Your task to perform on an android device: Go to network settings Image 0: 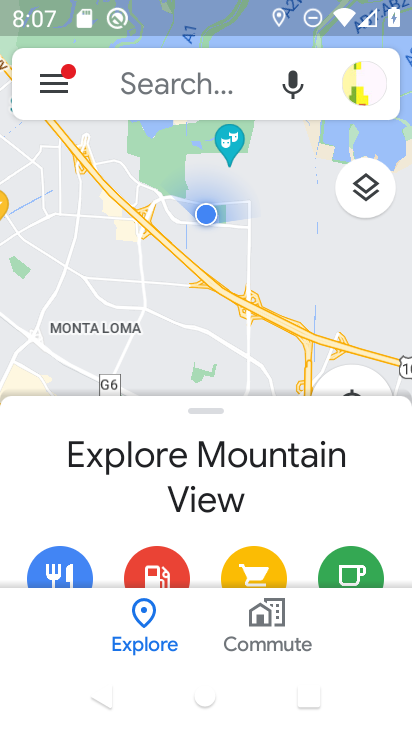
Step 0: press home button
Your task to perform on an android device: Go to network settings Image 1: 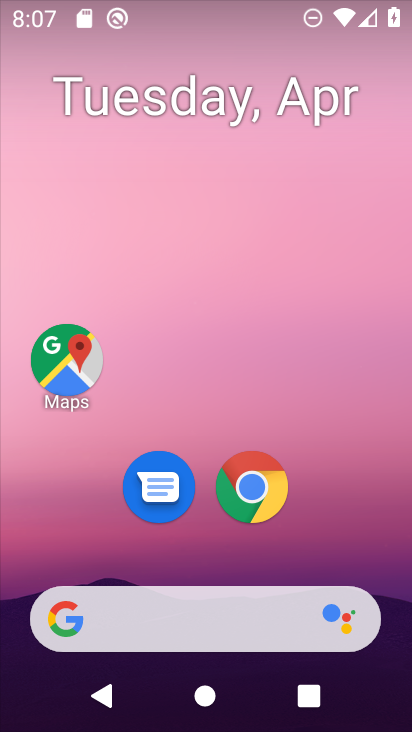
Step 1: drag from (202, 339) to (201, 222)
Your task to perform on an android device: Go to network settings Image 2: 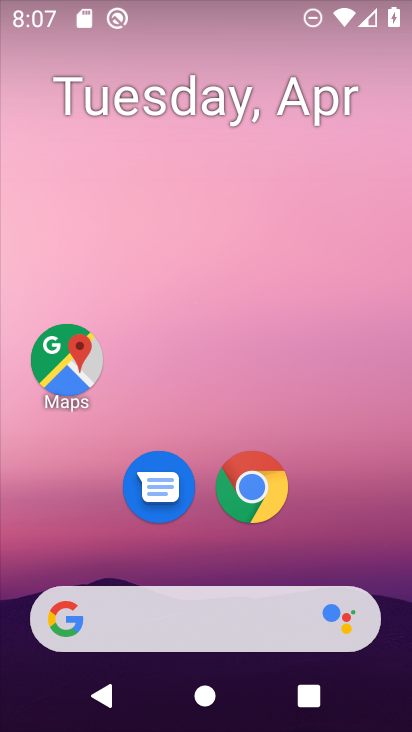
Step 2: drag from (224, 578) to (224, 216)
Your task to perform on an android device: Go to network settings Image 3: 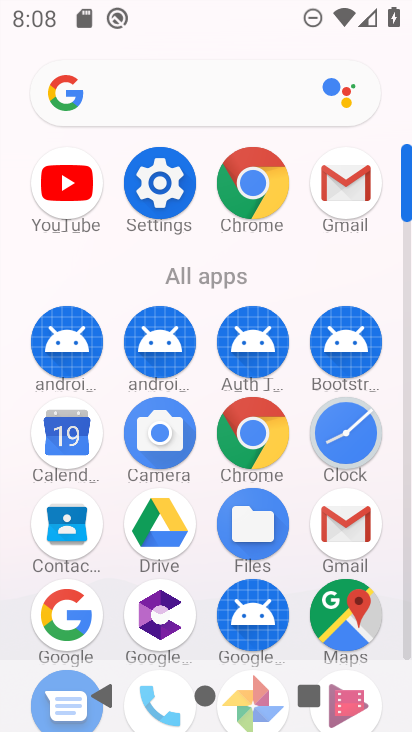
Step 3: click (157, 186)
Your task to perform on an android device: Go to network settings Image 4: 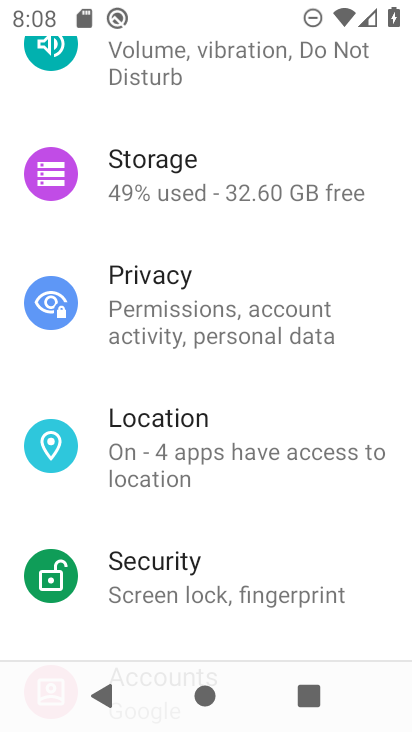
Step 4: drag from (167, 608) to (217, 239)
Your task to perform on an android device: Go to network settings Image 5: 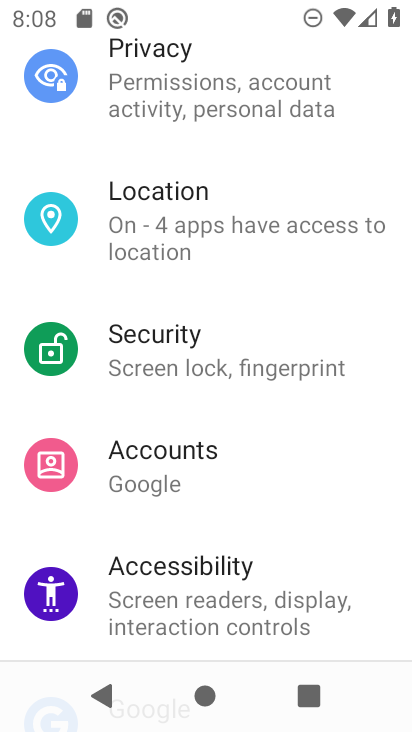
Step 5: drag from (200, 610) to (198, 310)
Your task to perform on an android device: Go to network settings Image 6: 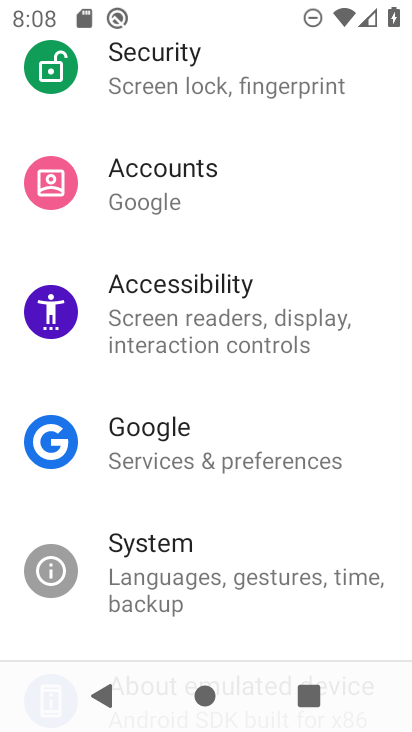
Step 6: drag from (279, 141) to (233, 553)
Your task to perform on an android device: Go to network settings Image 7: 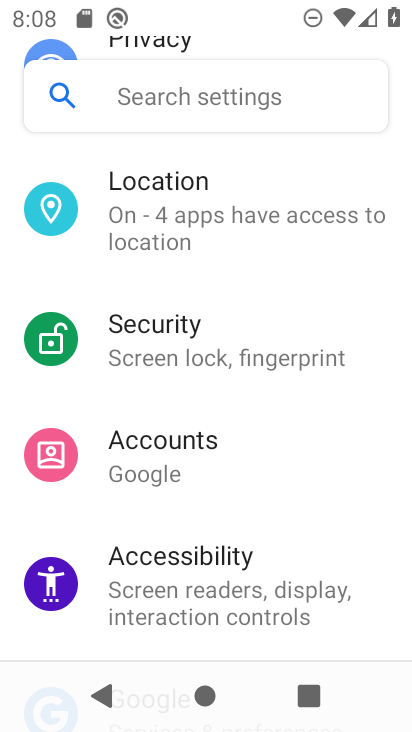
Step 7: drag from (251, 115) to (274, 497)
Your task to perform on an android device: Go to network settings Image 8: 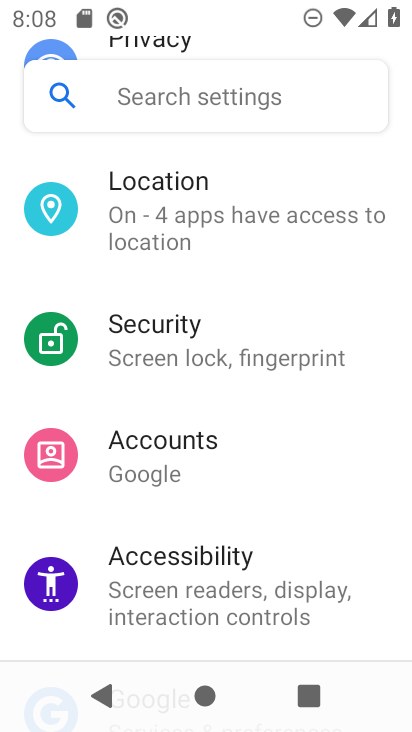
Step 8: drag from (275, 183) to (277, 535)
Your task to perform on an android device: Go to network settings Image 9: 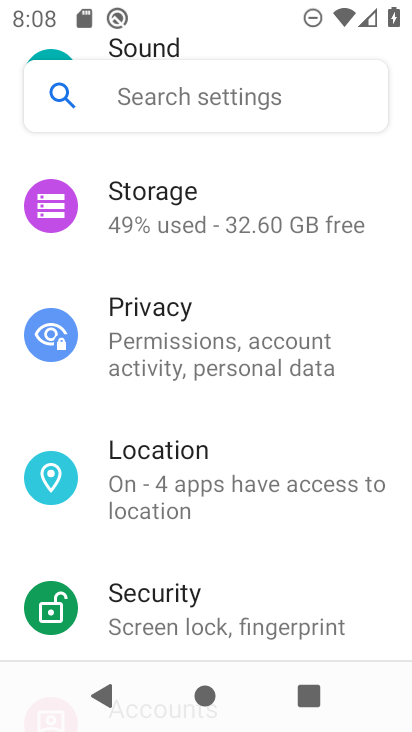
Step 9: drag from (288, 204) to (310, 609)
Your task to perform on an android device: Go to network settings Image 10: 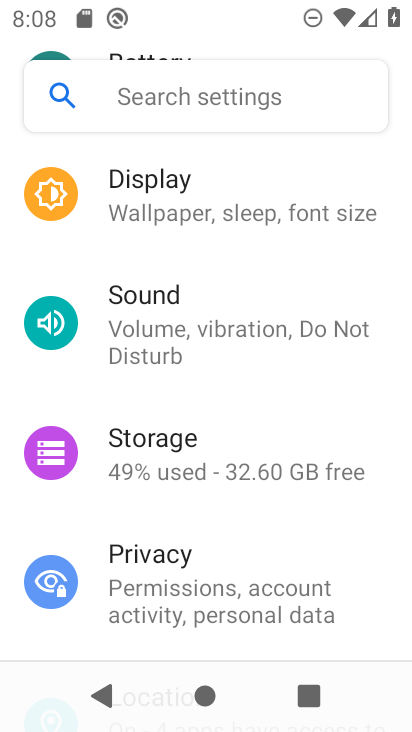
Step 10: drag from (318, 332) to (341, 727)
Your task to perform on an android device: Go to network settings Image 11: 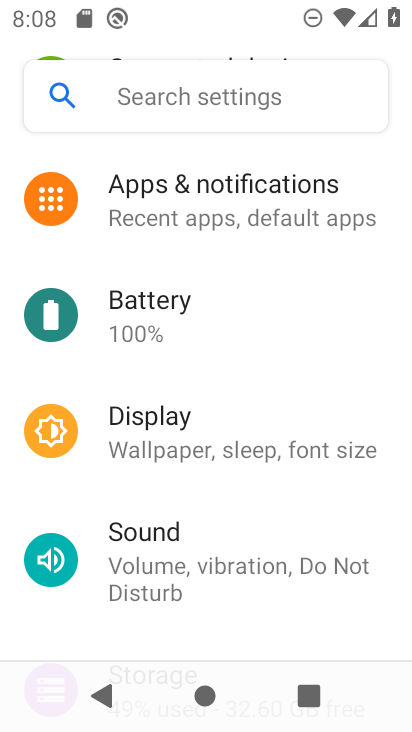
Step 11: drag from (277, 311) to (275, 477)
Your task to perform on an android device: Go to network settings Image 12: 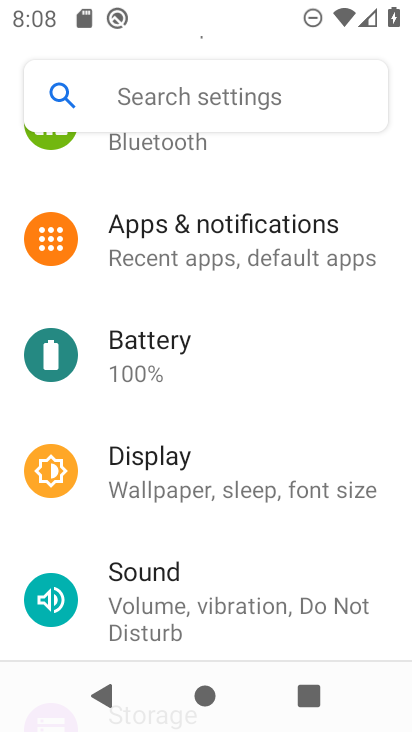
Step 12: drag from (252, 152) to (266, 431)
Your task to perform on an android device: Go to network settings Image 13: 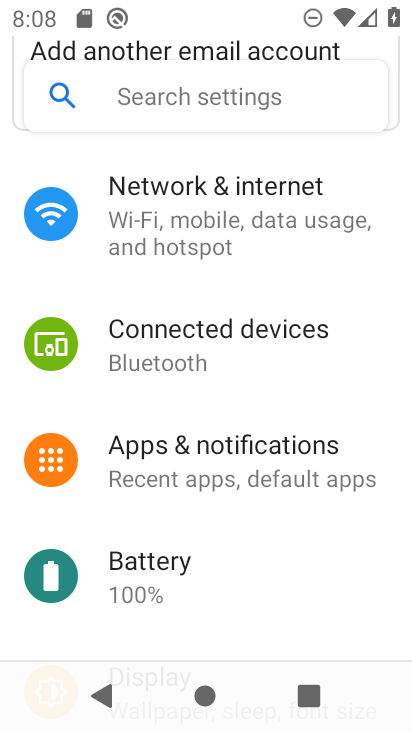
Step 13: click (145, 220)
Your task to perform on an android device: Go to network settings Image 14: 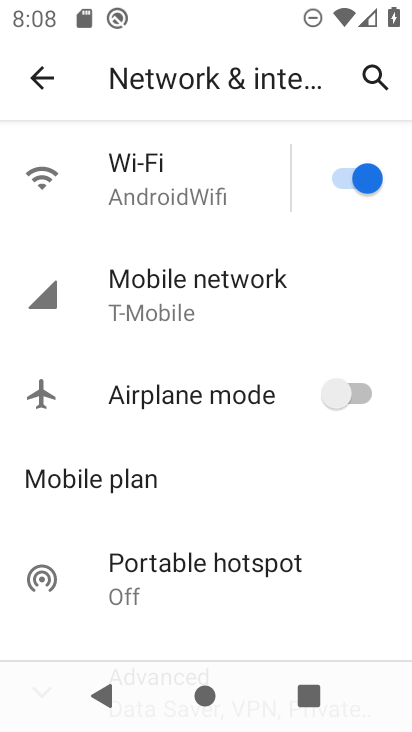
Step 14: drag from (143, 601) to (188, 196)
Your task to perform on an android device: Go to network settings Image 15: 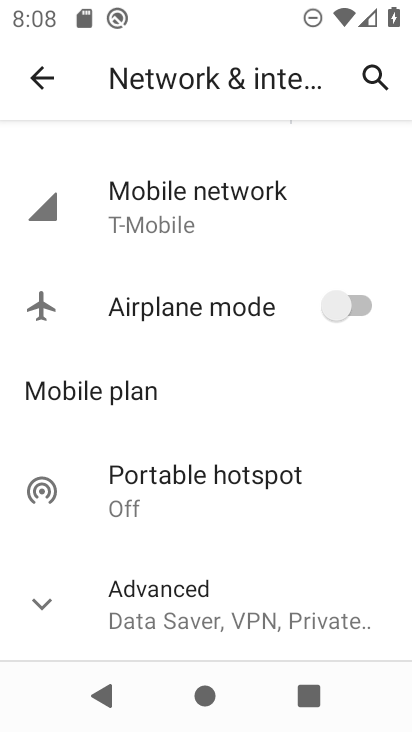
Step 15: click (191, 589)
Your task to perform on an android device: Go to network settings Image 16: 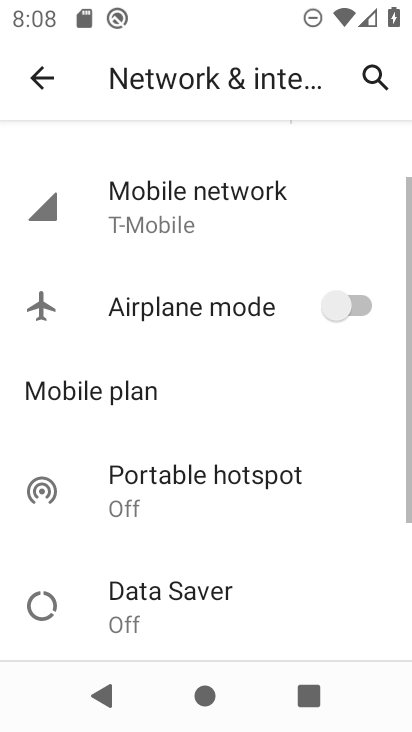
Step 16: task complete